Your task to perform on an android device: allow notifications from all sites in the chrome app Image 0: 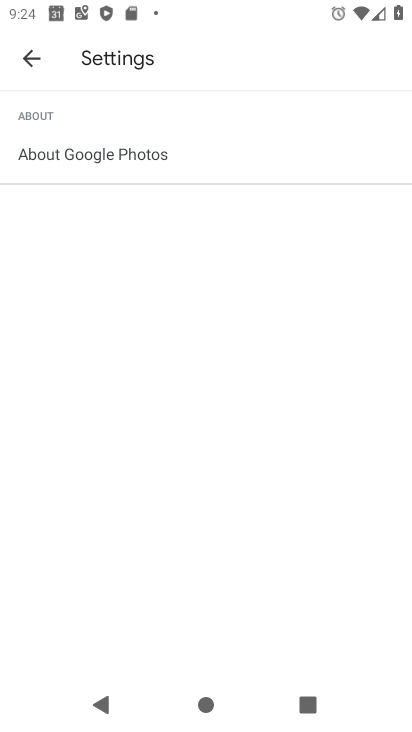
Step 0: press home button
Your task to perform on an android device: allow notifications from all sites in the chrome app Image 1: 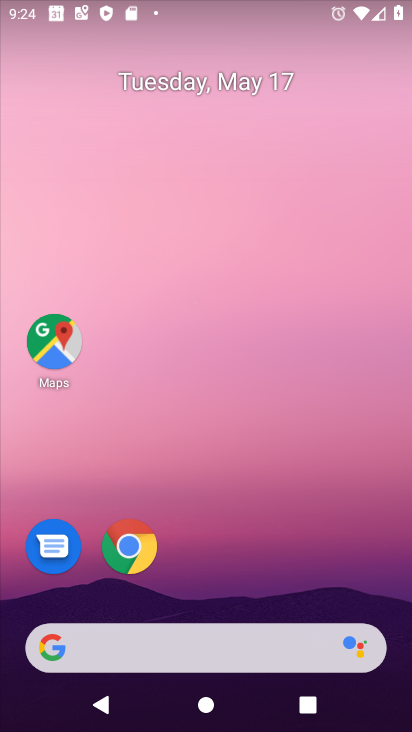
Step 1: click (125, 533)
Your task to perform on an android device: allow notifications from all sites in the chrome app Image 2: 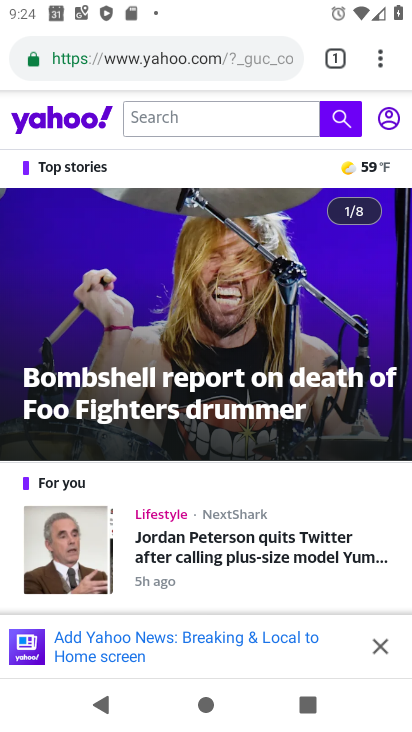
Step 2: click (375, 54)
Your task to perform on an android device: allow notifications from all sites in the chrome app Image 3: 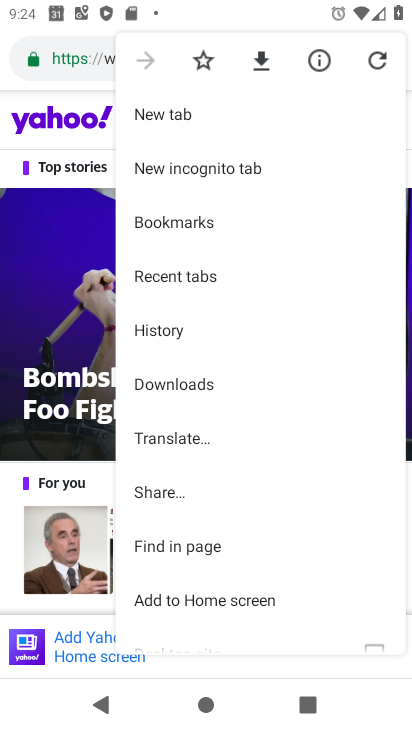
Step 3: drag from (257, 565) to (287, 247)
Your task to perform on an android device: allow notifications from all sites in the chrome app Image 4: 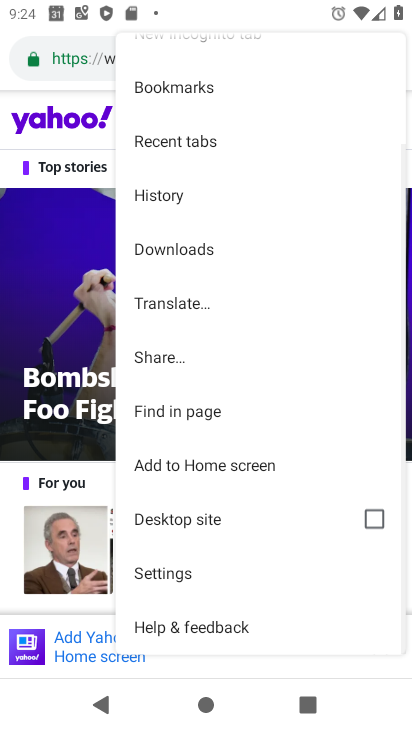
Step 4: click (202, 568)
Your task to perform on an android device: allow notifications from all sites in the chrome app Image 5: 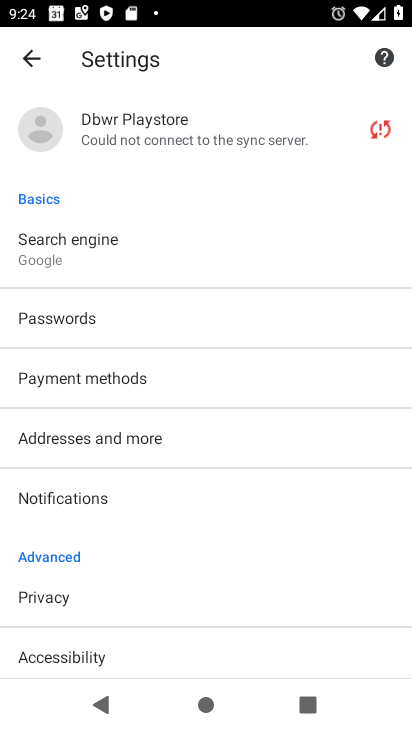
Step 5: click (105, 500)
Your task to perform on an android device: allow notifications from all sites in the chrome app Image 6: 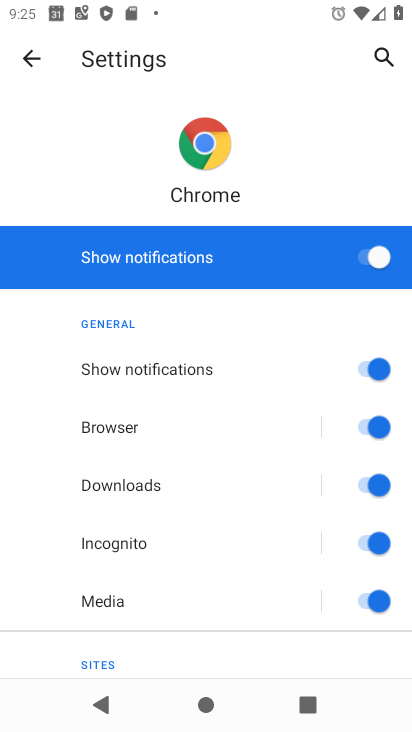
Step 6: task complete